Your task to perform on an android device: Open settings Image 0: 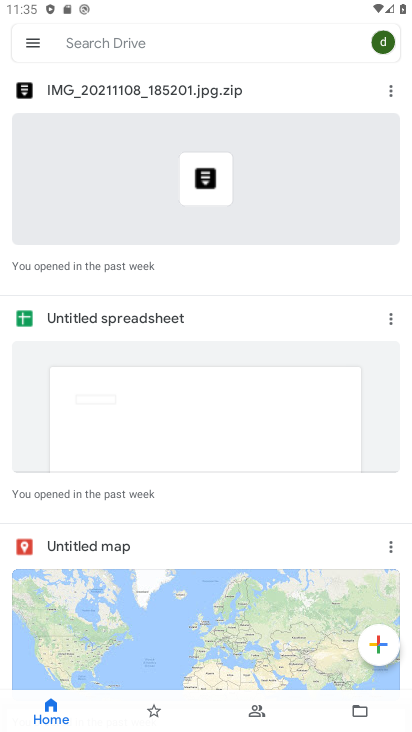
Step 0: press home button
Your task to perform on an android device: Open settings Image 1: 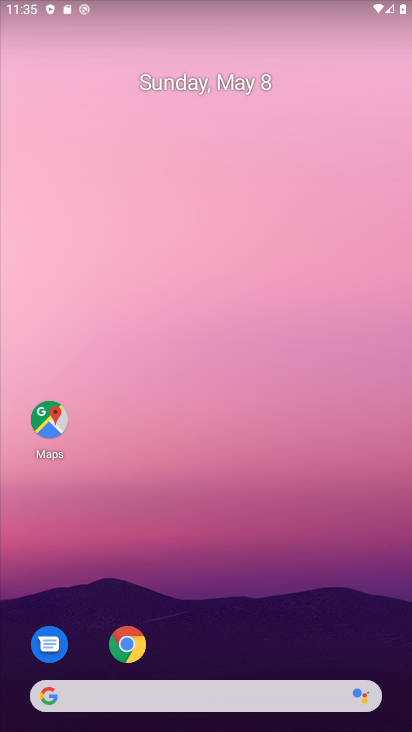
Step 1: drag from (382, 546) to (337, 31)
Your task to perform on an android device: Open settings Image 2: 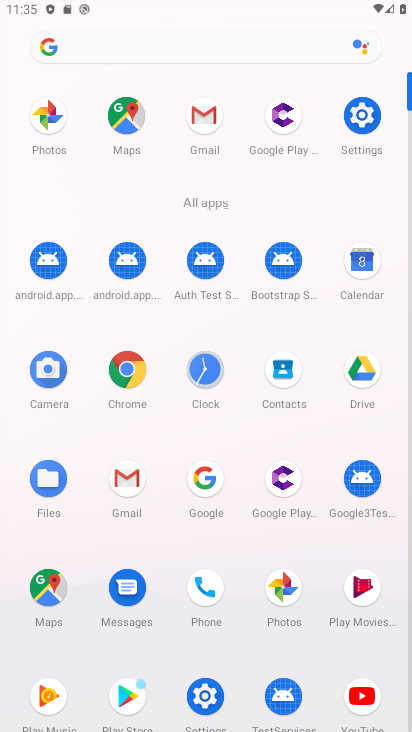
Step 2: click (202, 692)
Your task to perform on an android device: Open settings Image 3: 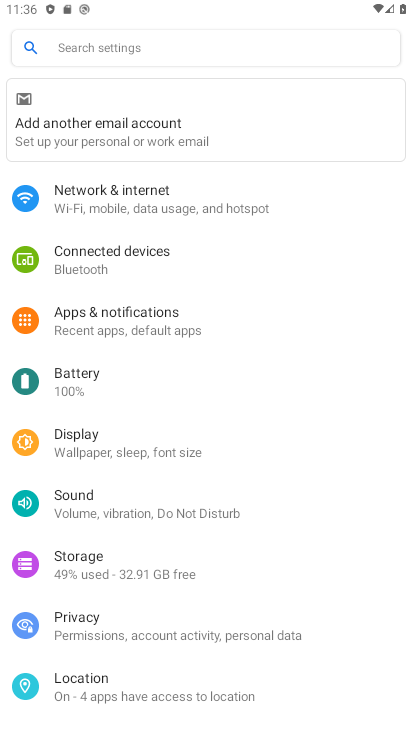
Step 3: task complete